Your task to perform on an android device: Search for dell xps on walmart.com, select the first entry, add it to the cart, then select checkout. Image 0: 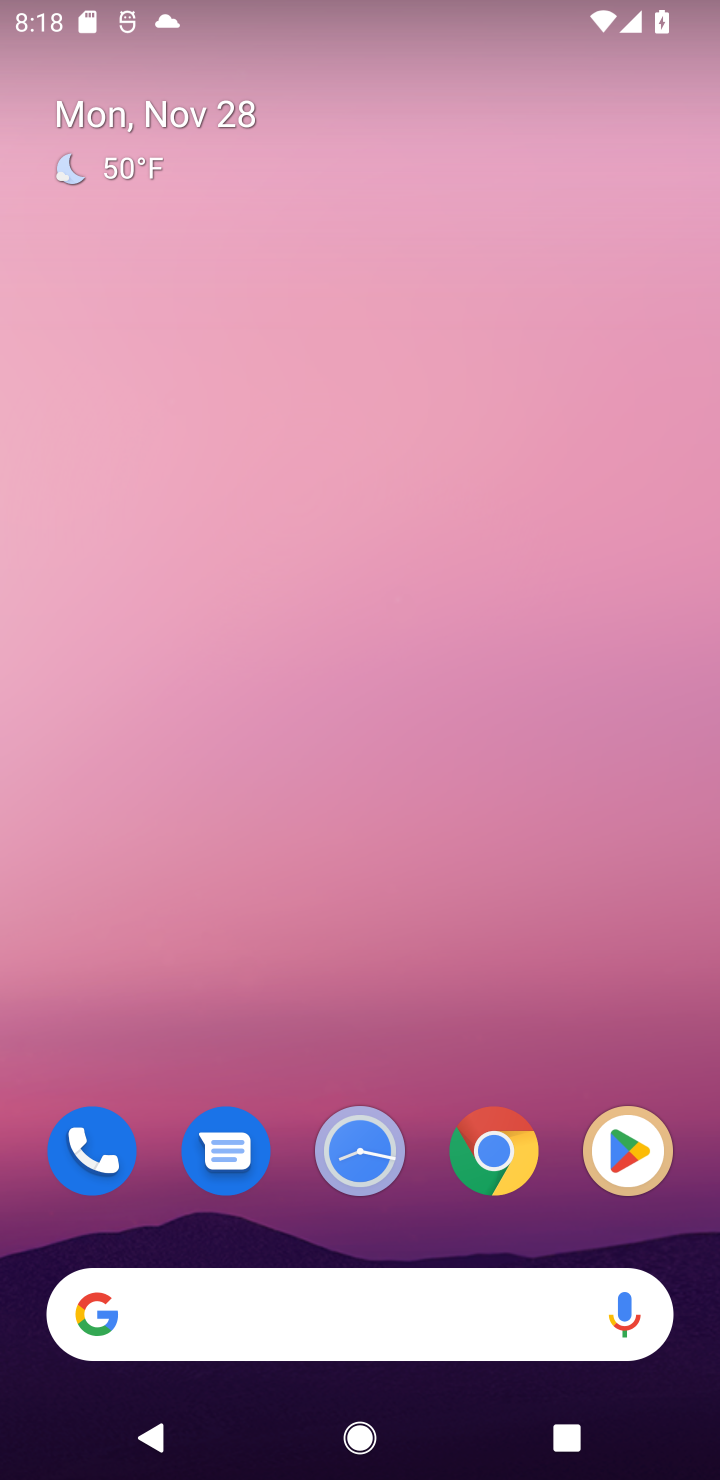
Step 0: click (278, 1346)
Your task to perform on an android device: Search for dell xps on walmart.com, select the first entry, add it to the cart, then select checkout. Image 1: 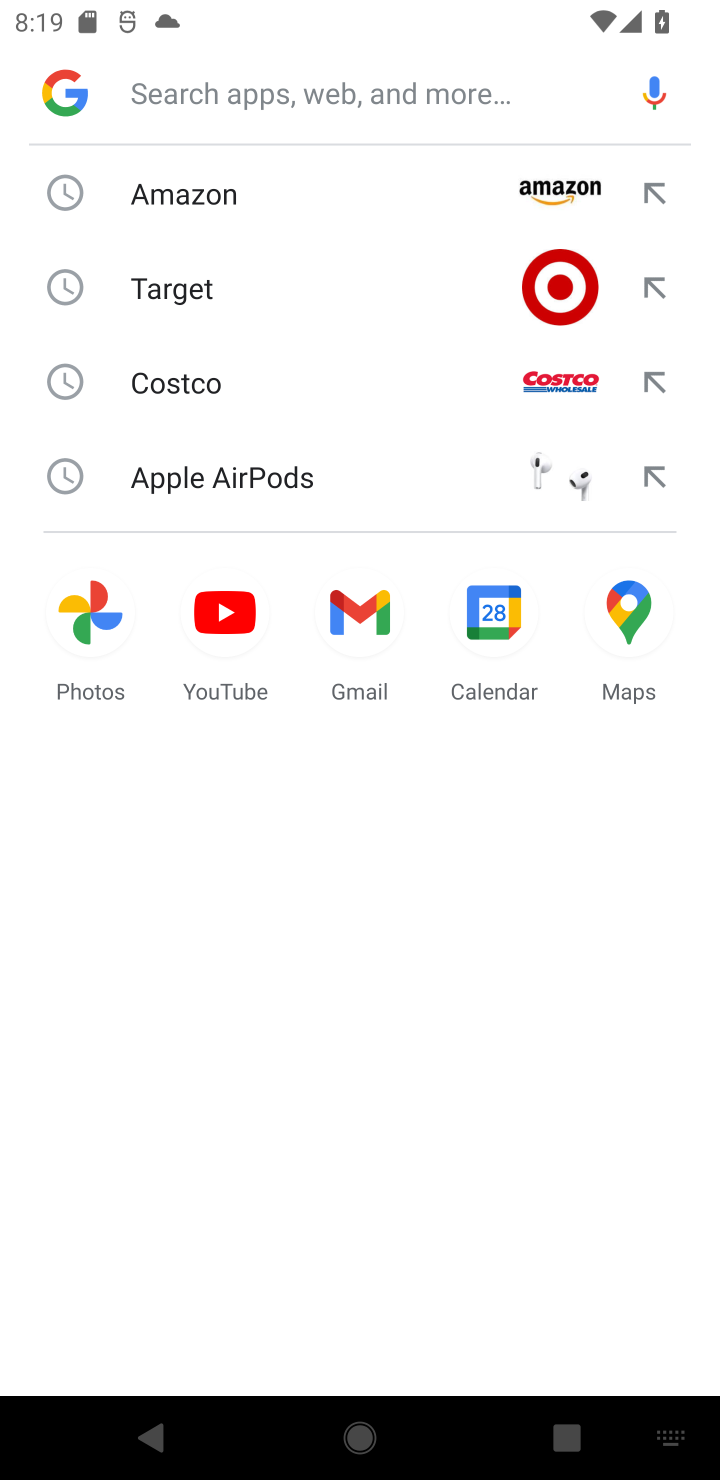
Step 1: type "walmart"
Your task to perform on an android device: Search for dell xps on walmart.com, select the first entry, add it to the cart, then select checkout. Image 2: 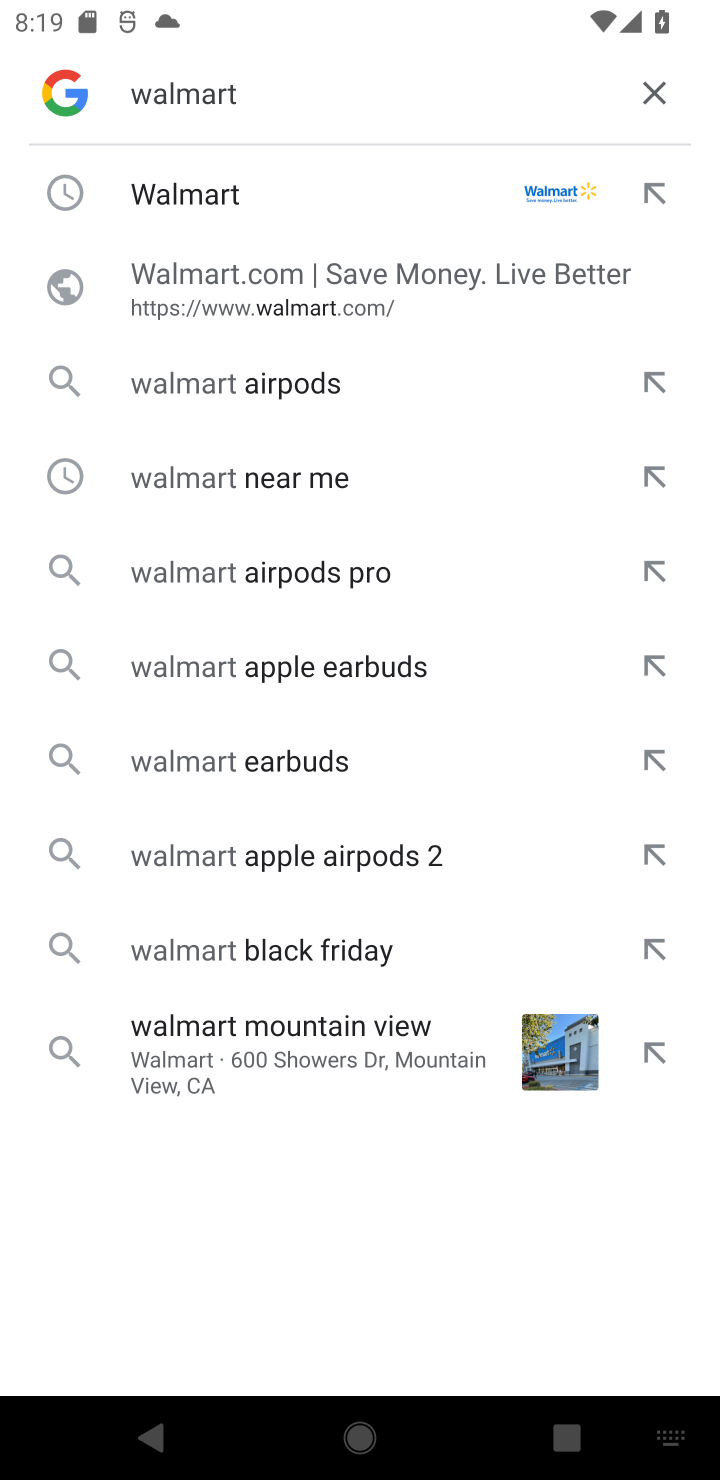
Step 2: click (278, 202)
Your task to perform on an android device: Search for dell xps on walmart.com, select the first entry, add it to the cart, then select checkout. Image 3: 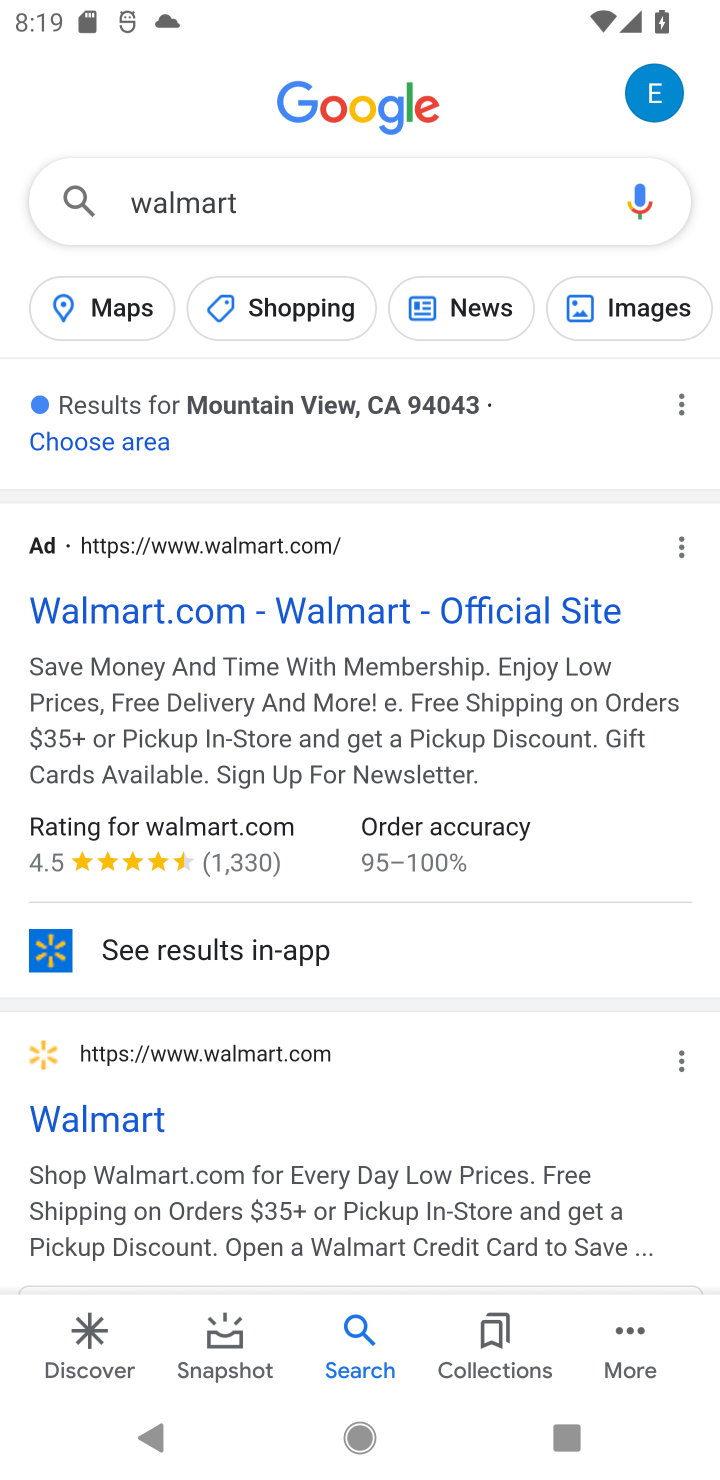
Step 3: click (351, 596)
Your task to perform on an android device: Search for dell xps on walmart.com, select the first entry, add it to the cart, then select checkout. Image 4: 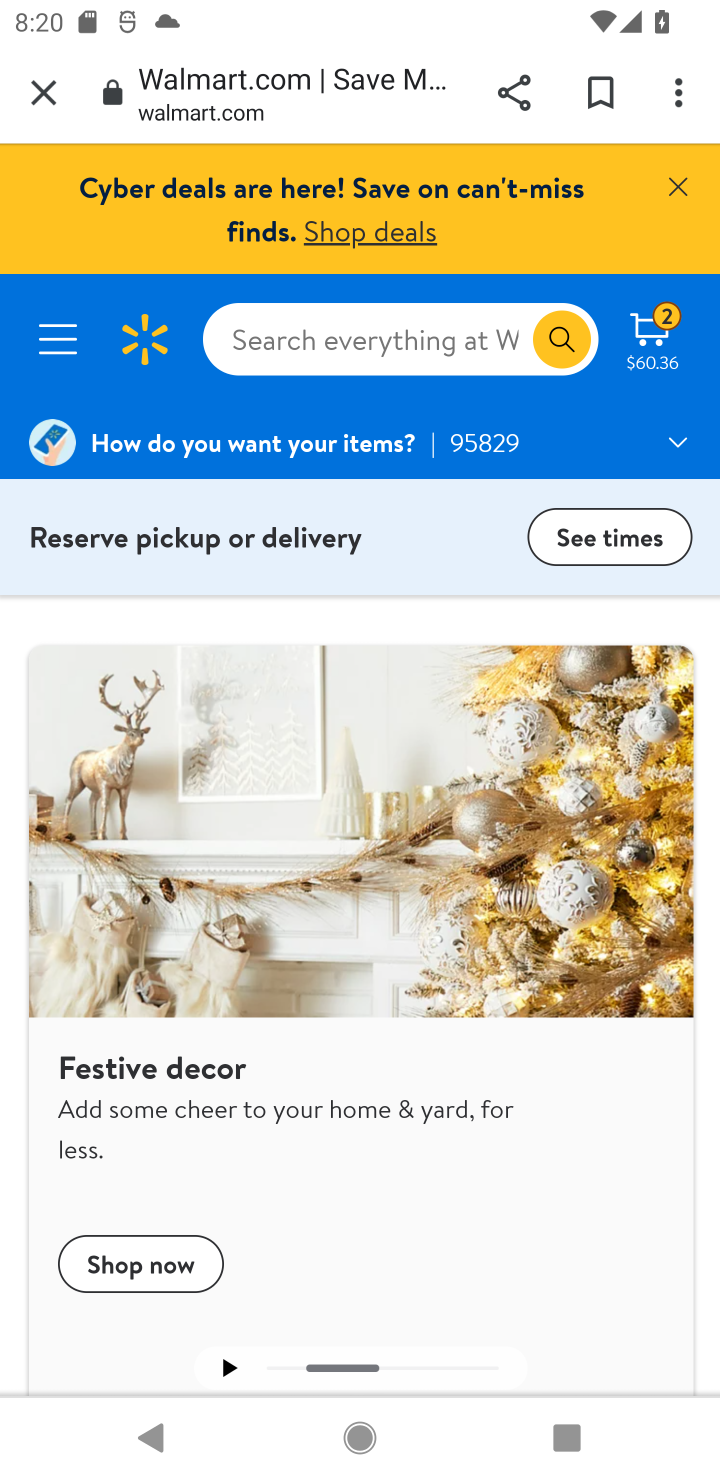
Step 4: click (299, 336)
Your task to perform on an android device: Search for dell xps on walmart.com, select the first entry, add it to the cart, then select checkout. Image 5: 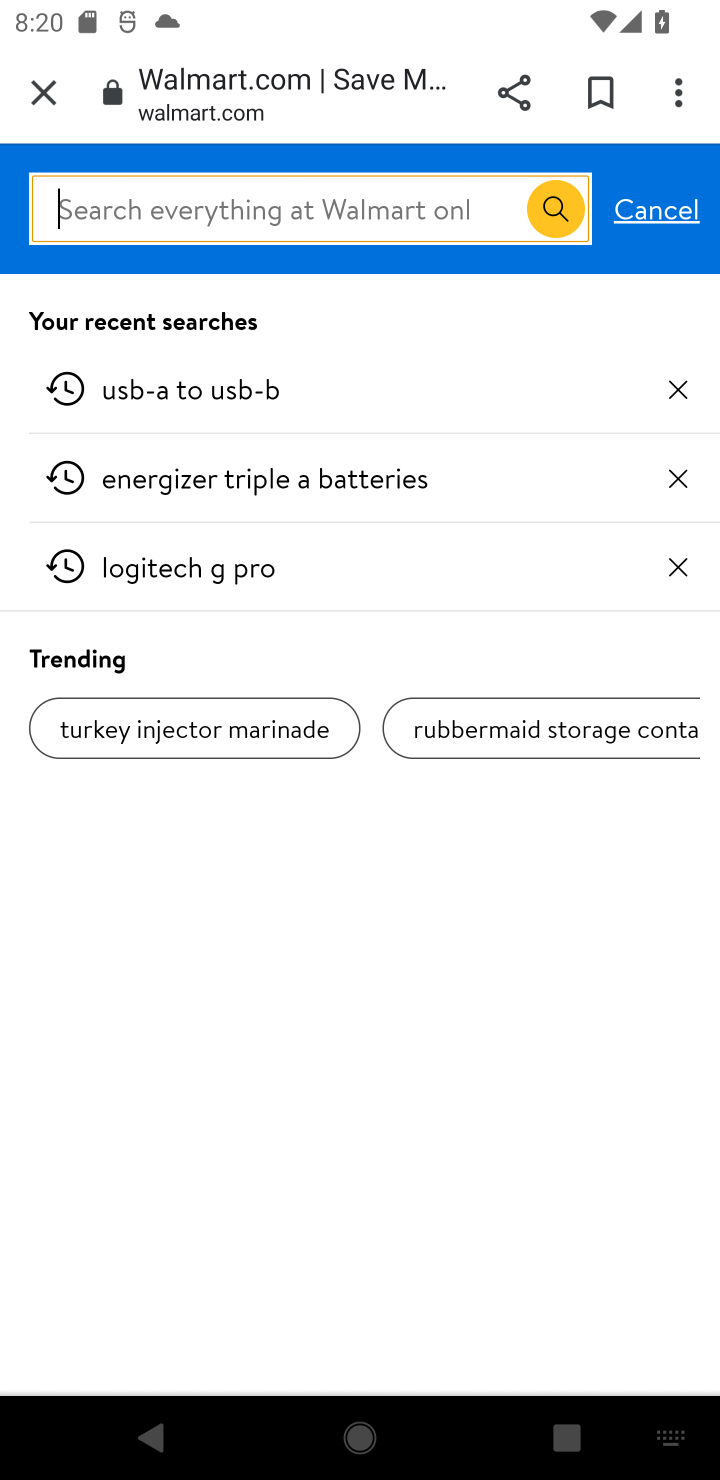
Step 5: type "dell xps"
Your task to perform on an android device: Search for dell xps on walmart.com, select the first entry, add it to the cart, then select checkout. Image 6: 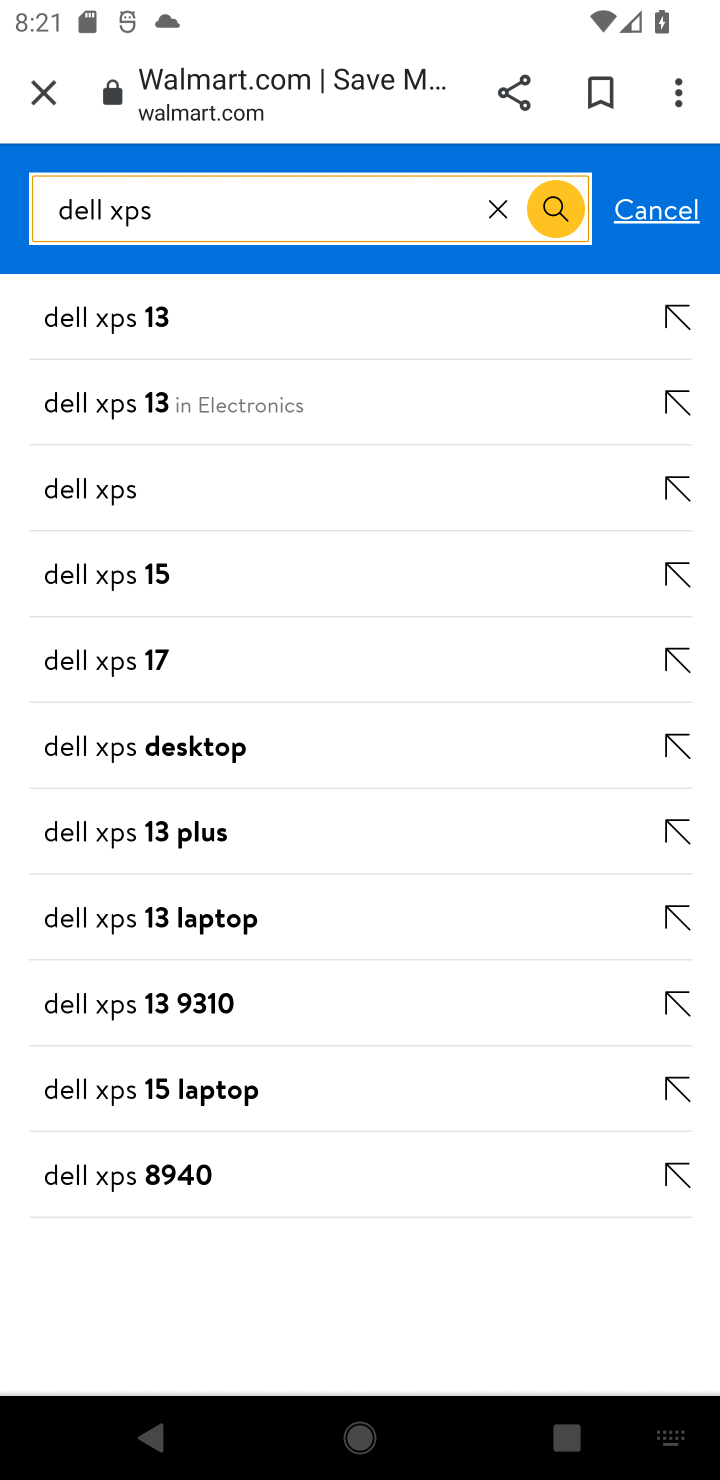
Step 6: click (545, 223)
Your task to perform on an android device: Search for dell xps on walmart.com, select the first entry, add it to the cart, then select checkout. Image 7: 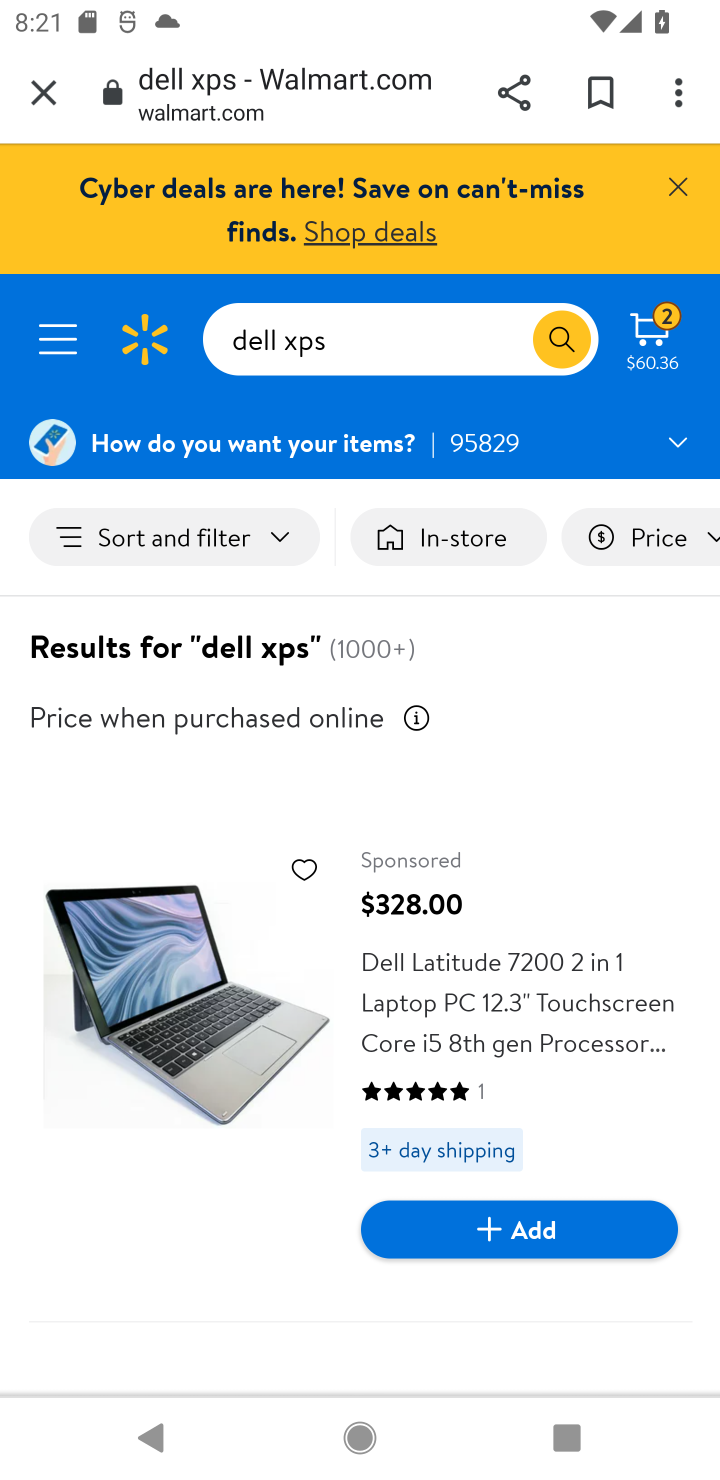
Step 7: click (598, 1198)
Your task to perform on an android device: Search for dell xps on walmart.com, select the first entry, add it to the cart, then select checkout. Image 8: 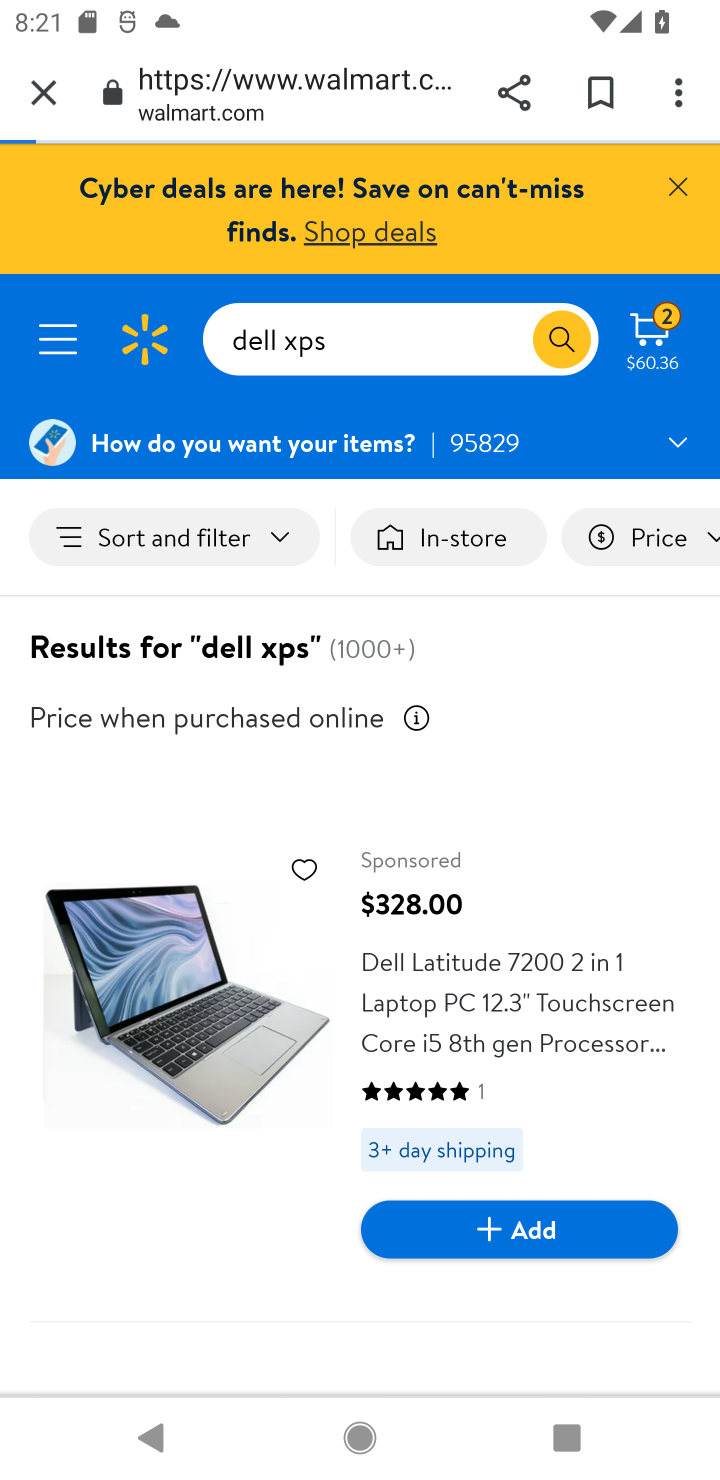
Step 8: task complete